Your task to perform on an android device: allow cookies in the chrome app Image 0: 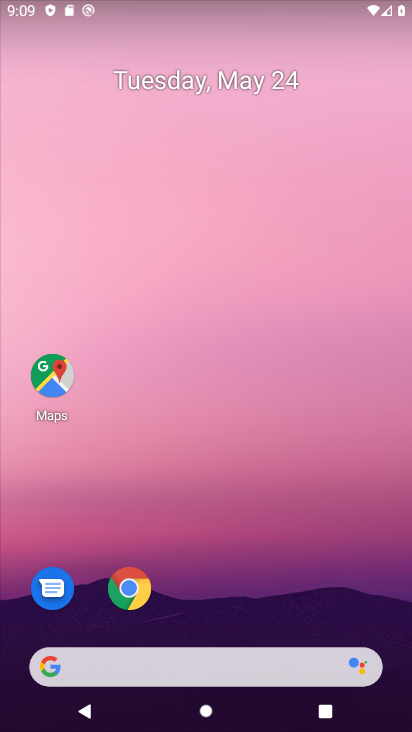
Step 0: click (124, 591)
Your task to perform on an android device: allow cookies in the chrome app Image 1: 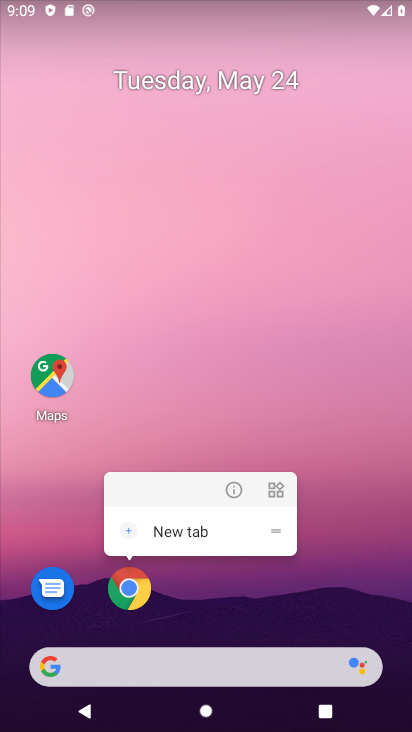
Step 1: click (129, 591)
Your task to perform on an android device: allow cookies in the chrome app Image 2: 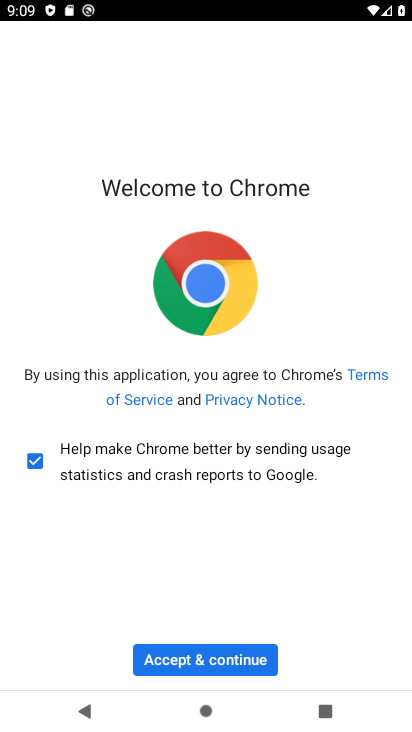
Step 2: click (202, 669)
Your task to perform on an android device: allow cookies in the chrome app Image 3: 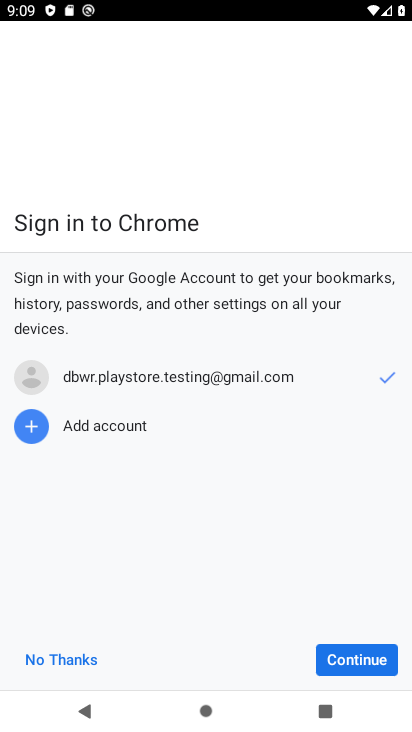
Step 3: click (344, 658)
Your task to perform on an android device: allow cookies in the chrome app Image 4: 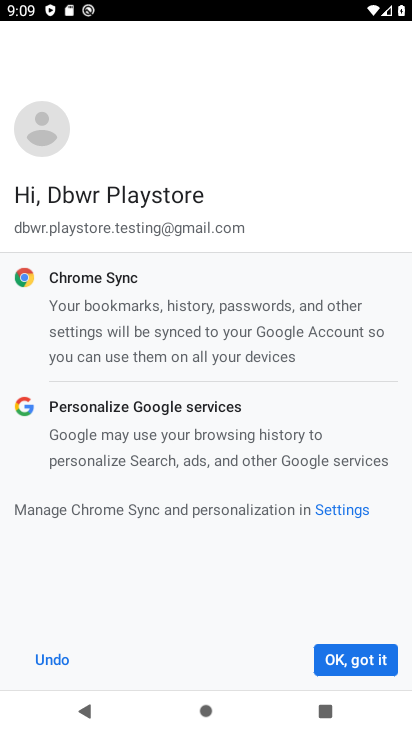
Step 4: click (350, 653)
Your task to perform on an android device: allow cookies in the chrome app Image 5: 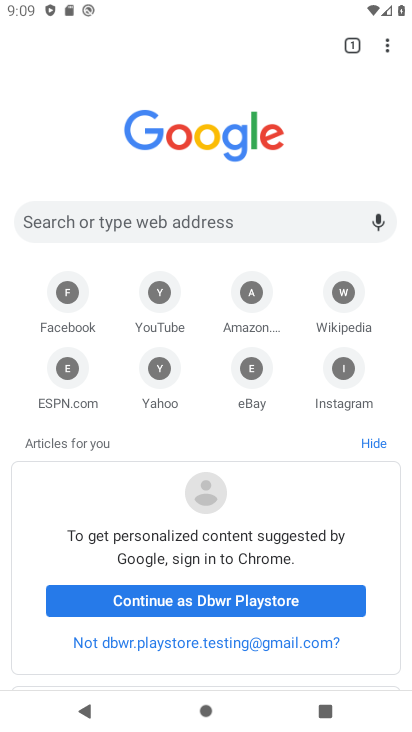
Step 5: drag from (388, 40) to (233, 386)
Your task to perform on an android device: allow cookies in the chrome app Image 6: 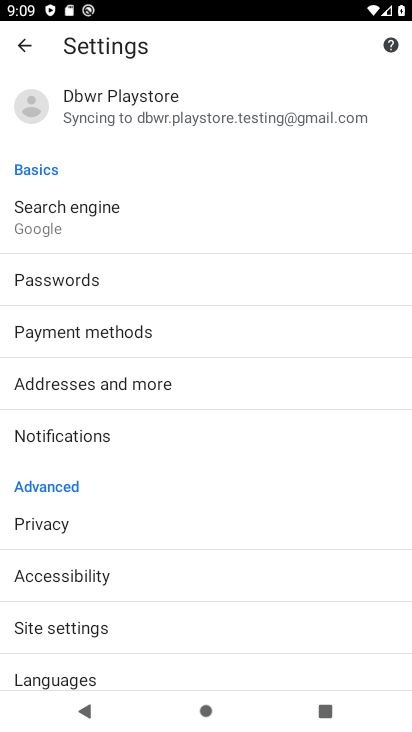
Step 6: click (121, 625)
Your task to perform on an android device: allow cookies in the chrome app Image 7: 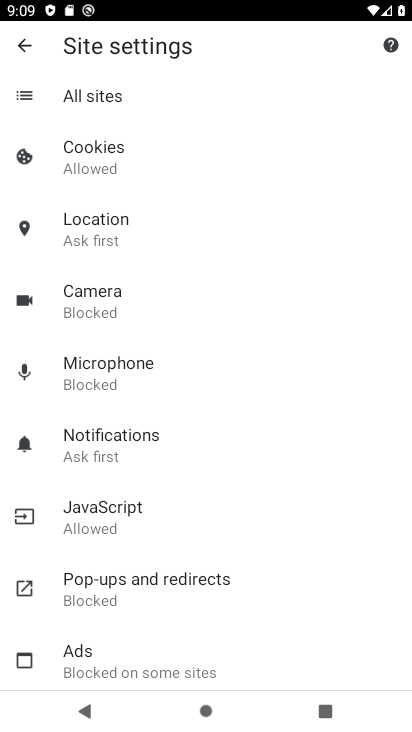
Step 7: click (117, 146)
Your task to perform on an android device: allow cookies in the chrome app Image 8: 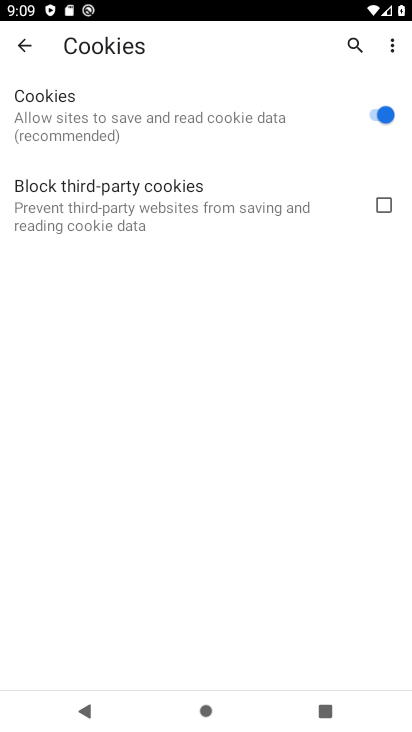
Step 8: task complete